Your task to perform on an android device: Go to internet settings Image 0: 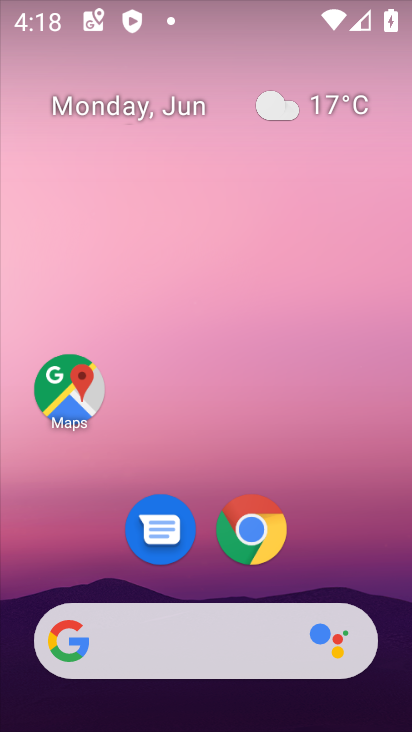
Step 0: drag from (339, 536) to (267, 60)
Your task to perform on an android device: Go to internet settings Image 1: 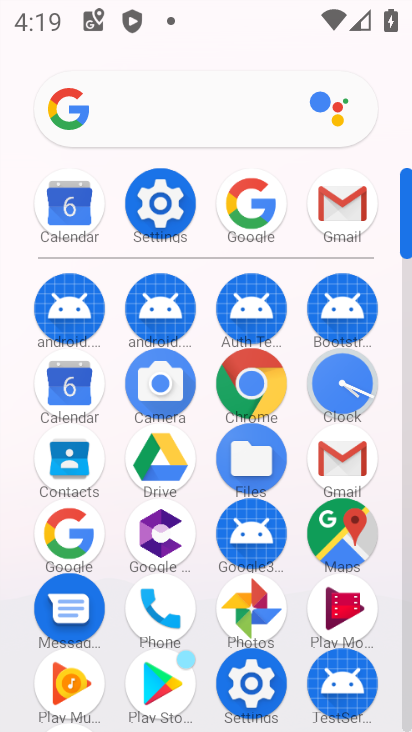
Step 1: click (157, 202)
Your task to perform on an android device: Go to internet settings Image 2: 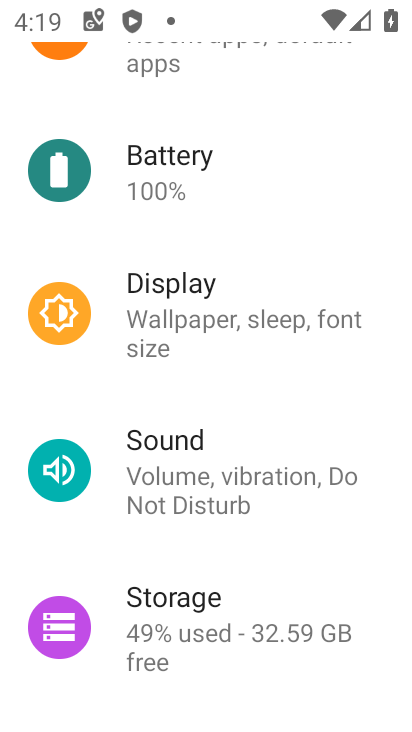
Step 2: drag from (244, 125) to (260, 549)
Your task to perform on an android device: Go to internet settings Image 3: 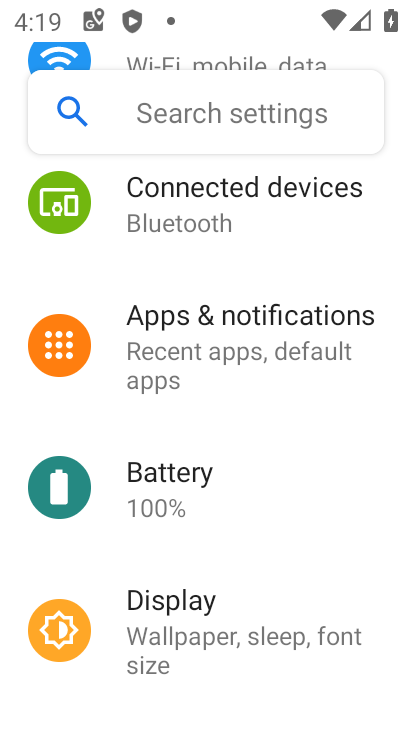
Step 3: drag from (290, 229) to (324, 565)
Your task to perform on an android device: Go to internet settings Image 4: 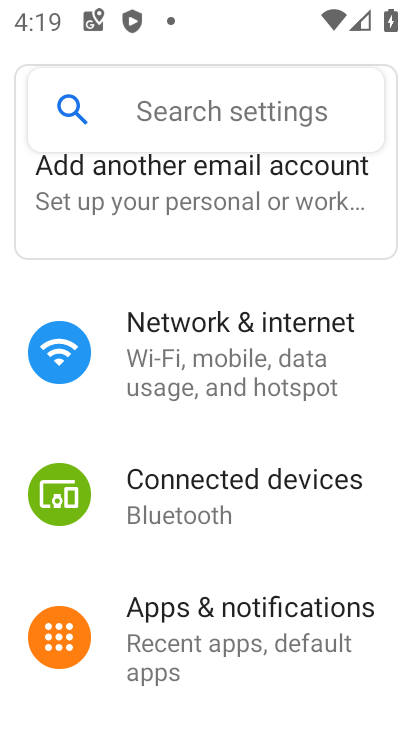
Step 4: click (260, 354)
Your task to perform on an android device: Go to internet settings Image 5: 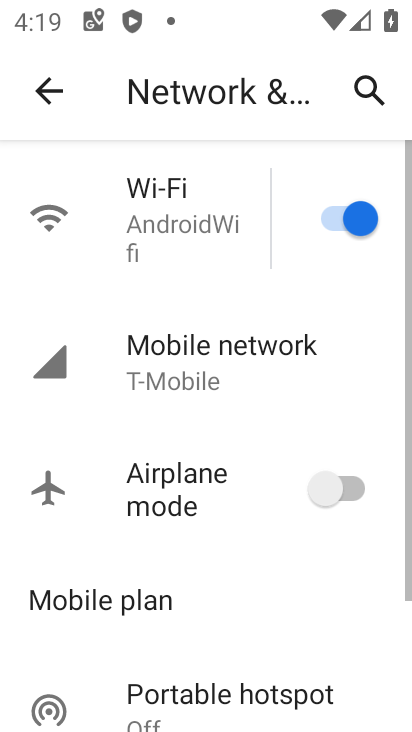
Step 5: click (194, 222)
Your task to perform on an android device: Go to internet settings Image 6: 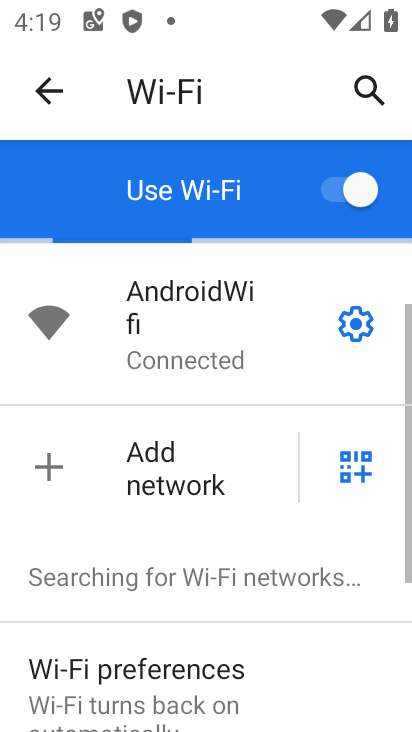
Step 6: task complete